Your task to perform on an android device: Go to eBay Image 0: 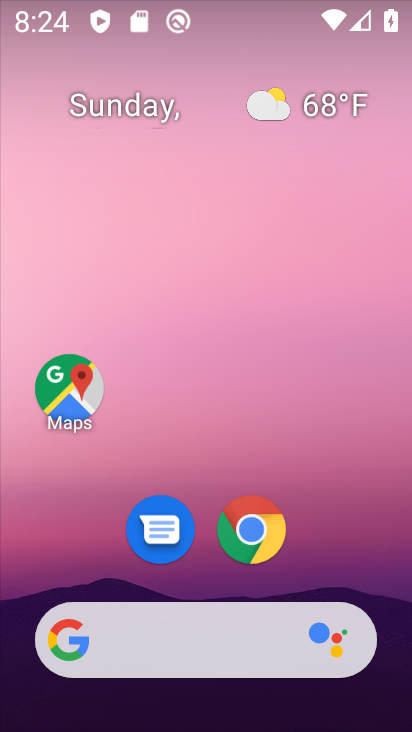
Step 0: press home button
Your task to perform on an android device: Go to eBay Image 1: 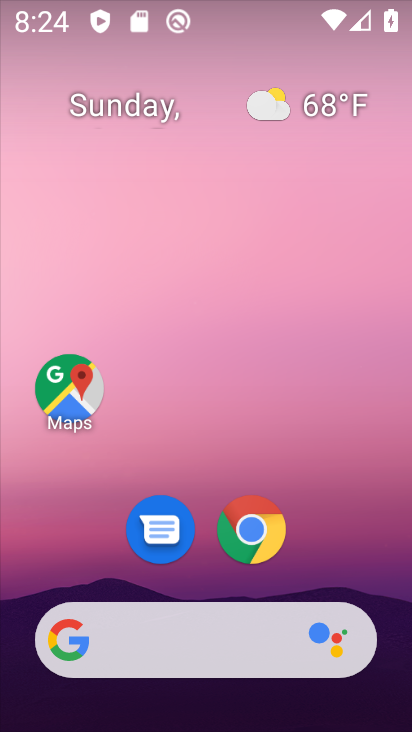
Step 1: click (248, 523)
Your task to perform on an android device: Go to eBay Image 2: 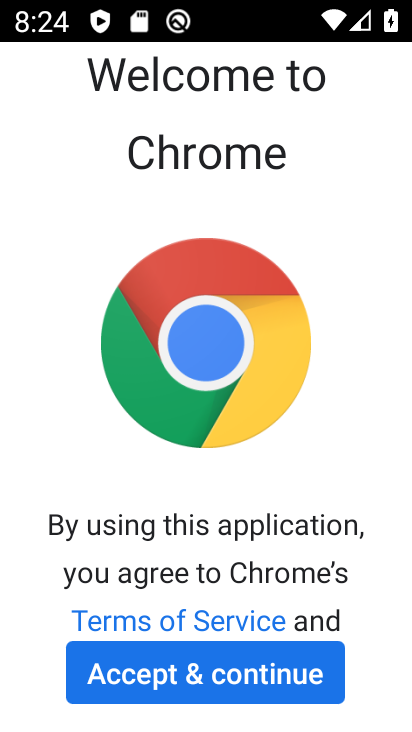
Step 2: click (190, 665)
Your task to perform on an android device: Go to eBay Image 3: 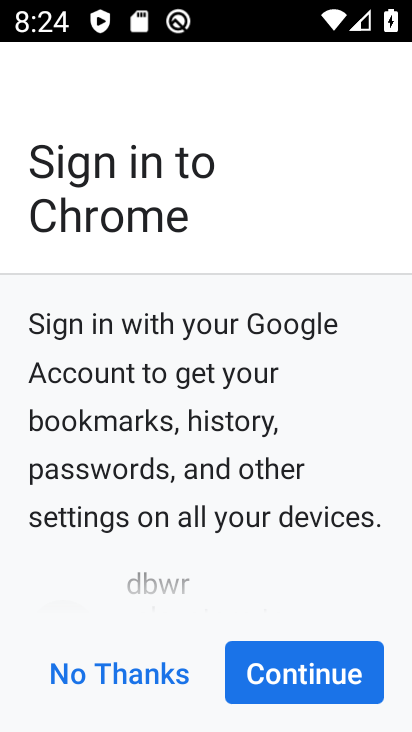
Step 3: click (307, 671)
Your task to perform on an android device: Go to eBay Image 4: 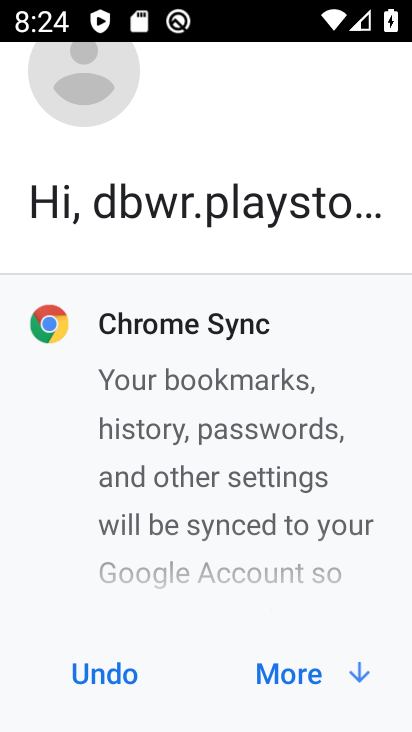
Step 4: click (307, 671)
Your task to perform on an android device: Go to eBay Image 5: 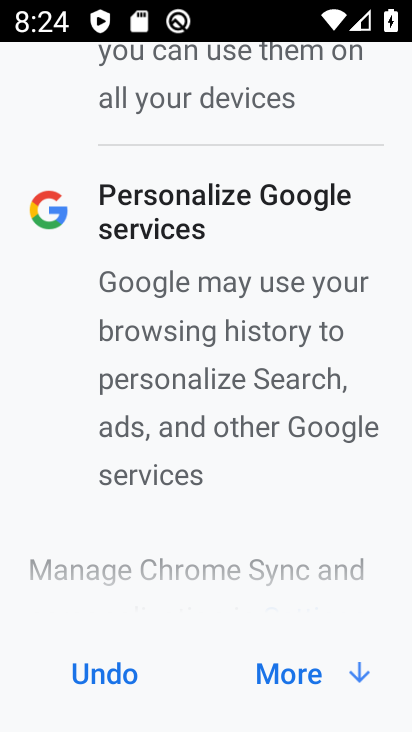
Step 5: click (307, 671)
Your task to perform on an android device: Go to eBay Image 6: 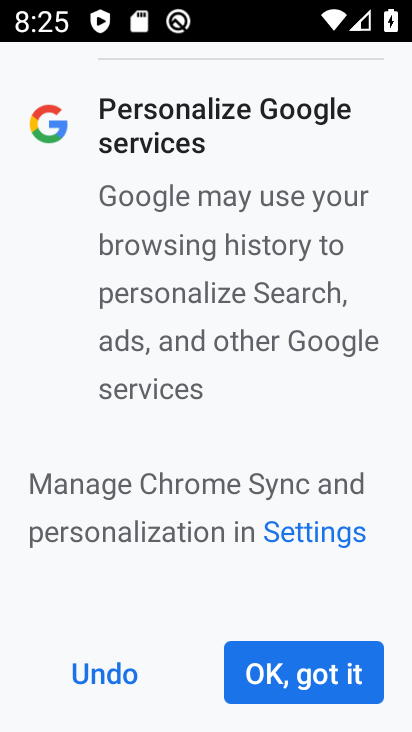
Step 6: click (312, 674)
Your task to perform on an android device: Go to eBay Image 7: 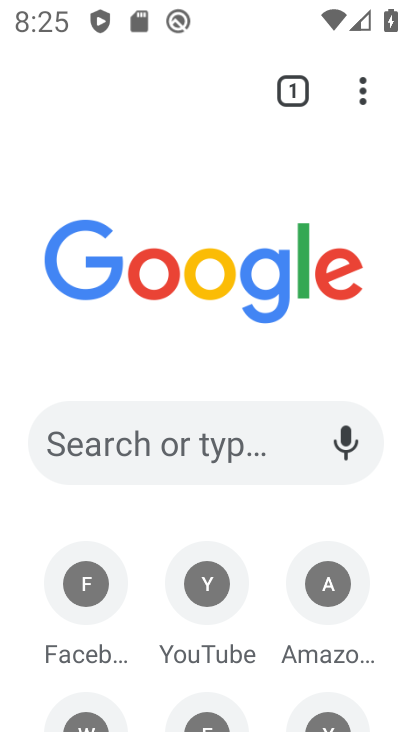
Step 7: drag from (269, 661) to (264, 225)
Your task to perform on an android device: Go to eBay Image 8: 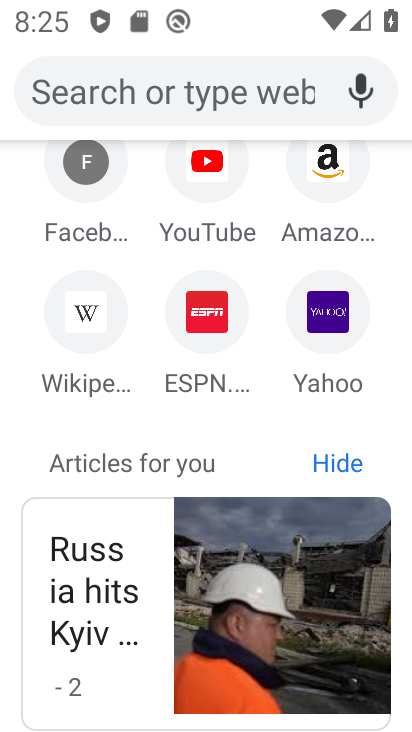
Step 8: click (172, 90)
Your task to perform on an android device: Go to eBay Image 9: 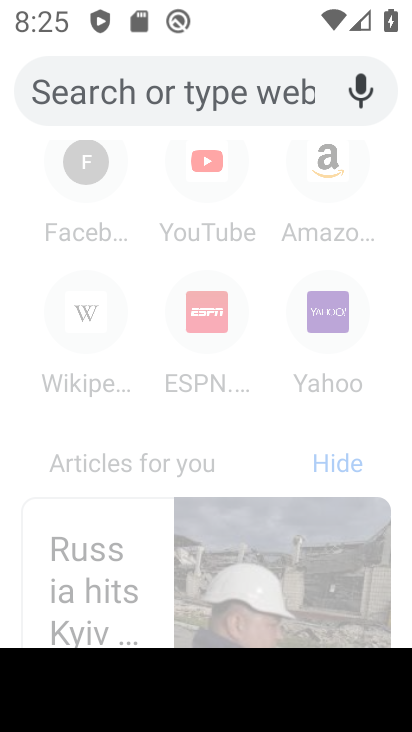
Step 9: type "ebay.com"
Your task to perform on an android device: Go to eBay Image 10: 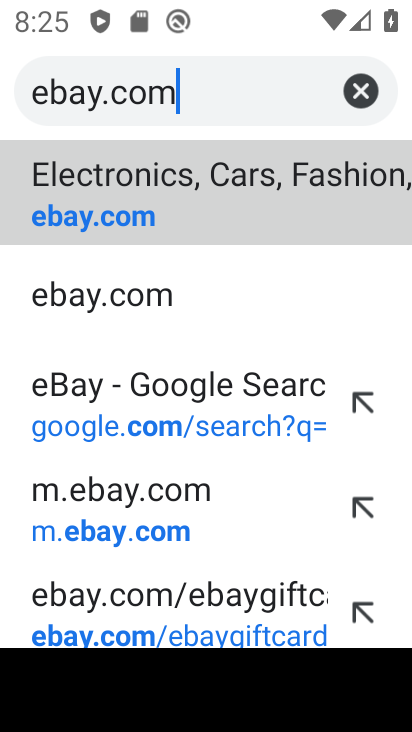
Step 10: click (198, 209)
Your task to perform on an android device: Go to eBay Image 11: 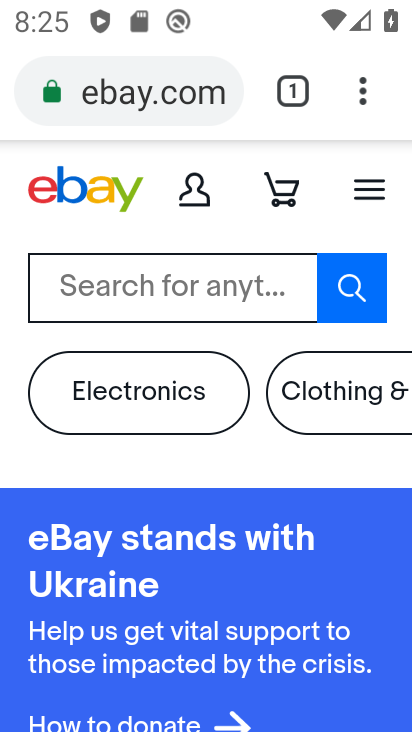
Step 11: task complete